Your task to perform on an android device: change the clock display to show seconds Image 0: 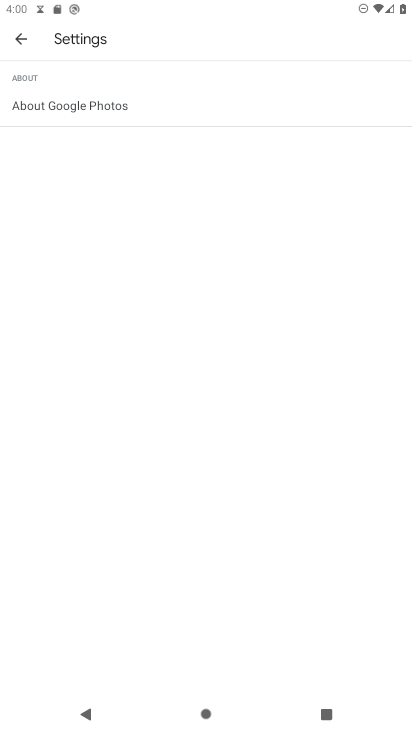
Step 0: press home button
Your task to perform on an android device: change the clock display to show seconds Image 1: 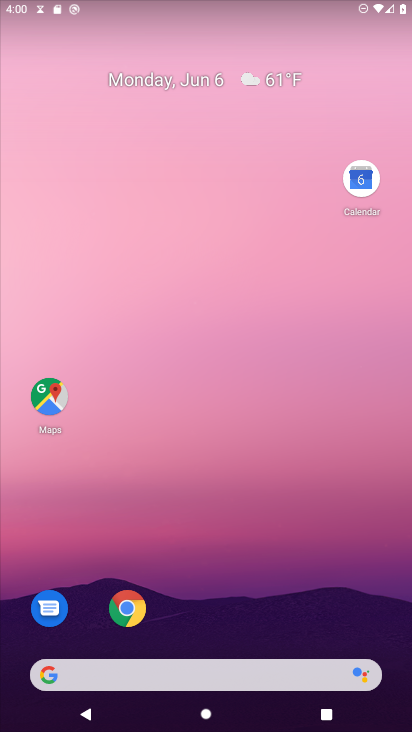
Step 1: drag from (261, 607) to (279, 72)
Your task to perform on an android device: change the clock display to show seconds Image 2: 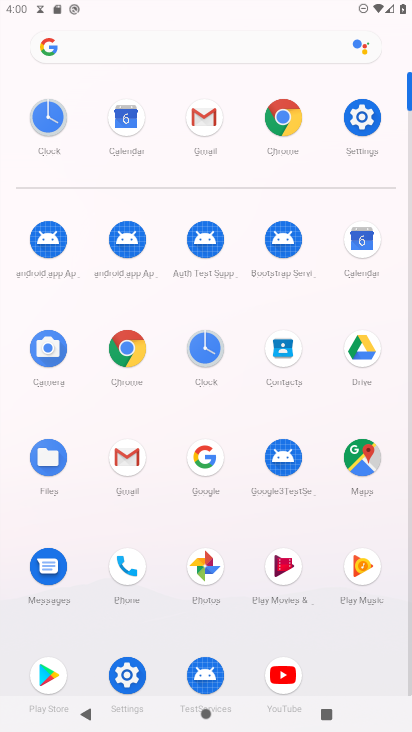
Step 2: click (199, 351)
Your task to perform on an android device: change the clock display to show seconds Image 3: 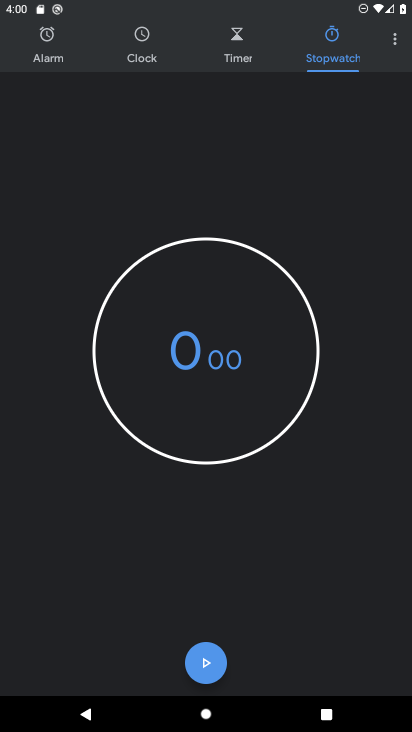
Step 3: click (384, 38)
Your task to perform on an android device: change the clock display to show seconds Image 4: 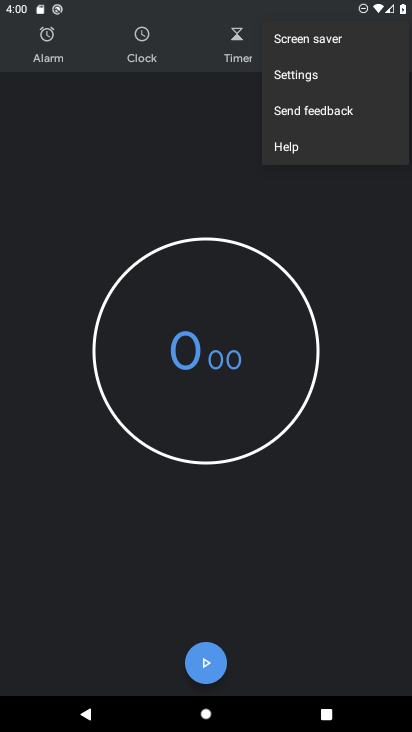
Step 4: click (302, 79)
Your task to perform on an android device: change the clock display to show seconds Image 5: 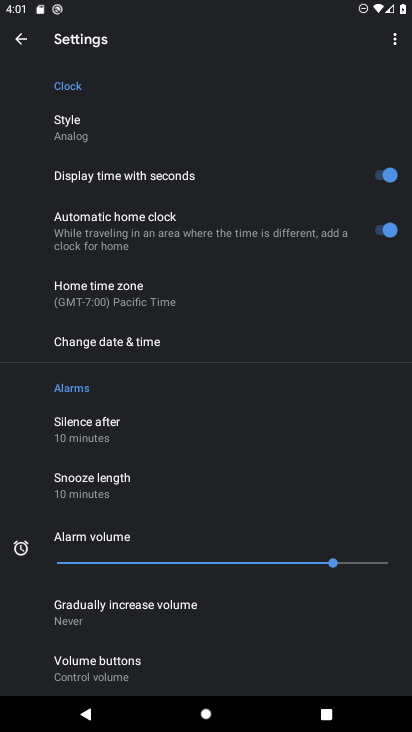
Step 5: task complete